Your task to perform on an android device: find photos in the google photos app Image 0: 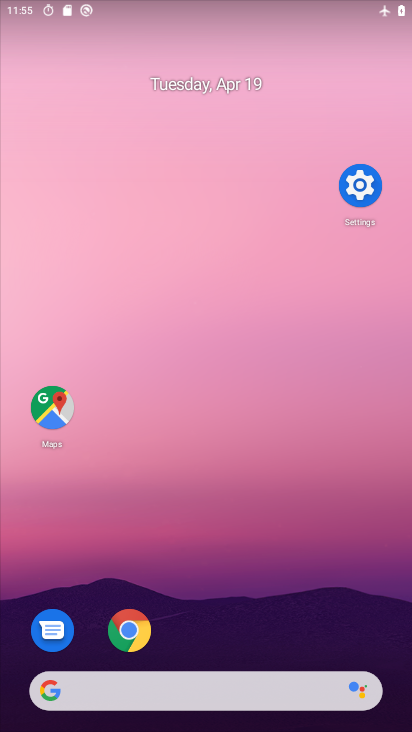
Step 0: drag from (202, 617) to (201, 285)
Your task to perform on an android device: find photos in the google photos app Image 1: 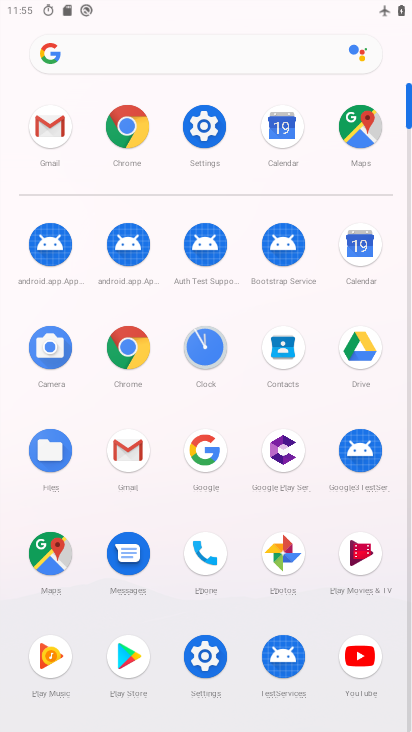
Step 1: click (288, 557)
Your task to perform on an android device: find photos in the google photos app Image 2: 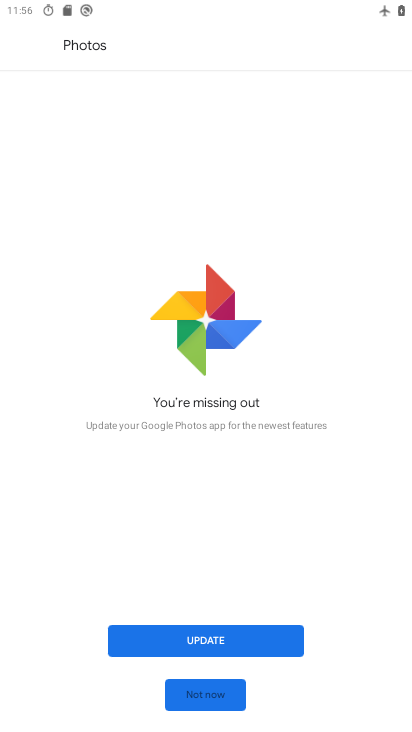
Step 2: task complete